Your task to perform on an android device: check out phone information Image 0: 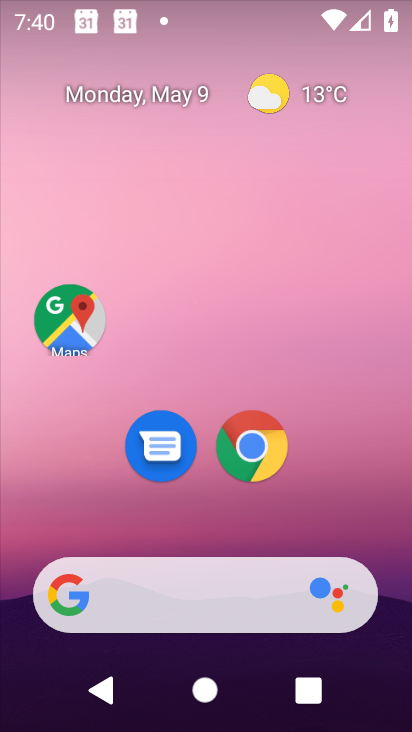
Step 0: drag from (317, 119) to (282, 177)
Your task to perform on an android device: check out phone information Image 1: 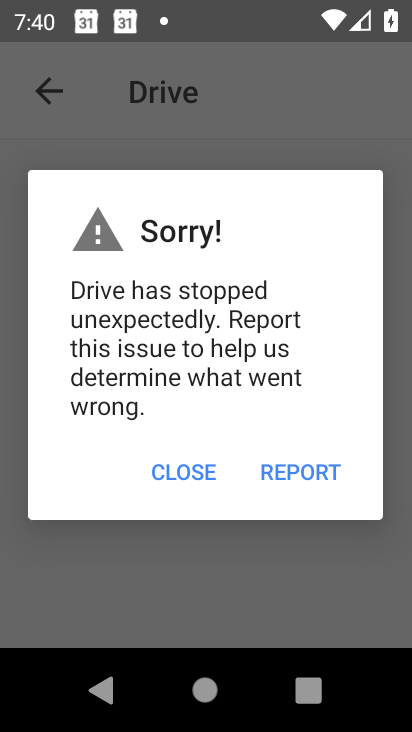
Step 1: press home button
Your task to perform on an android device: check out phone information Image 2: 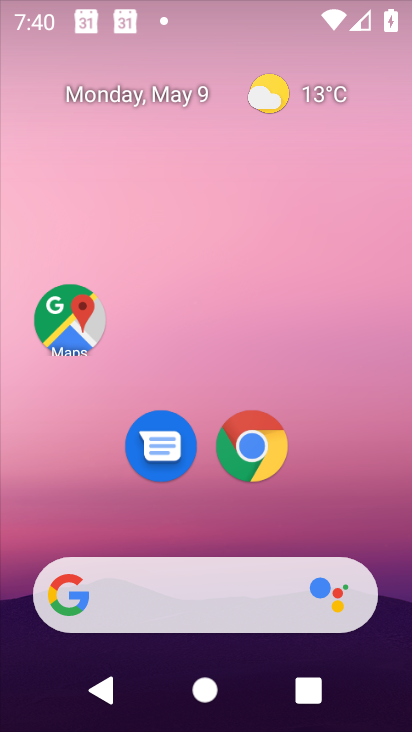
Step 2: drag from (315, 332) to (311, 89)
Your task to perform on an android device: check out phone information Image 3: 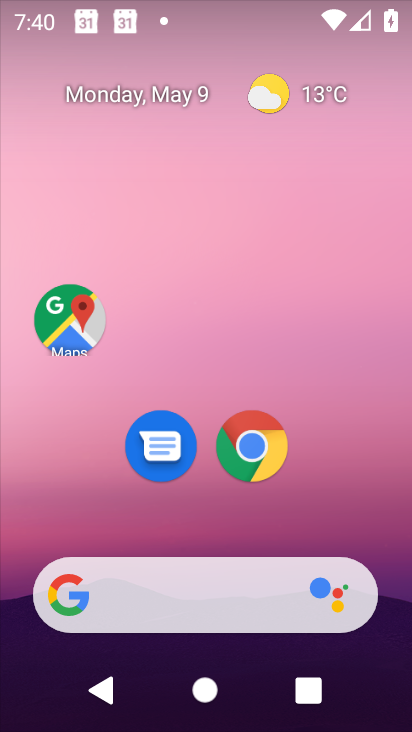
Step 3: drag from (324, 507) to (338, 93)
Your task to perform on an android device: check out phone information Image 4: 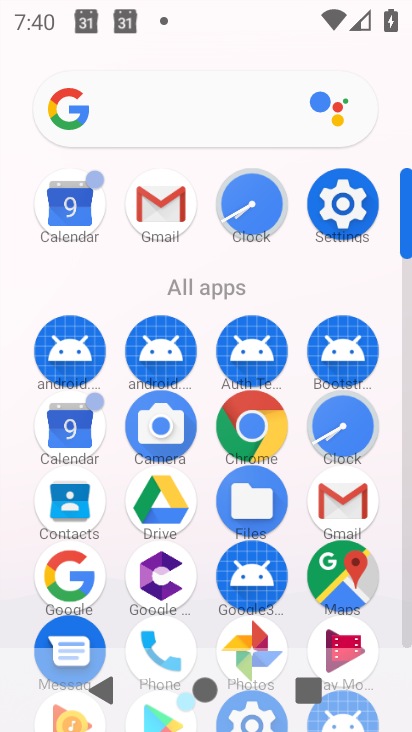
Step 4: click (165, 633)
Your task to perform on an android device: check out phone information Image 5: 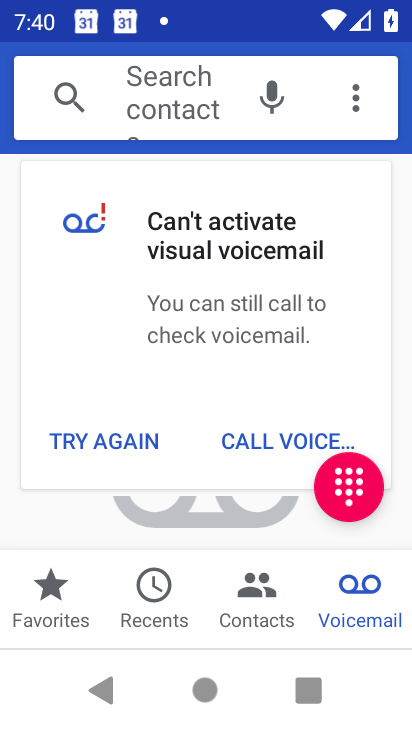
Step 5: click (358, 100)
Your task to perform on an android device: check out phone information Image 6: 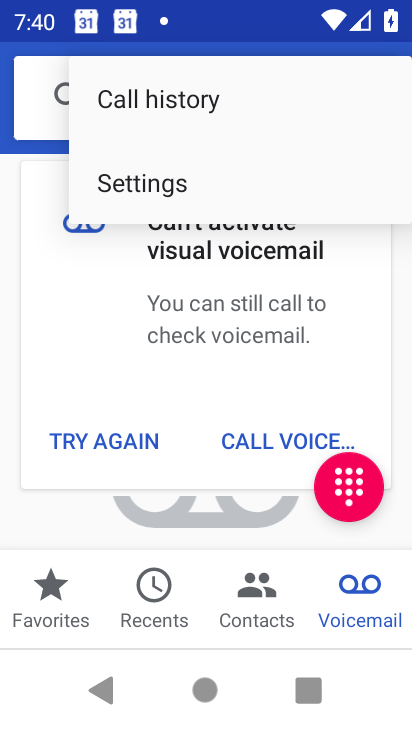
Step 6: click (194, 192)
Your task to perform on an android device: check out phone information Image 7: 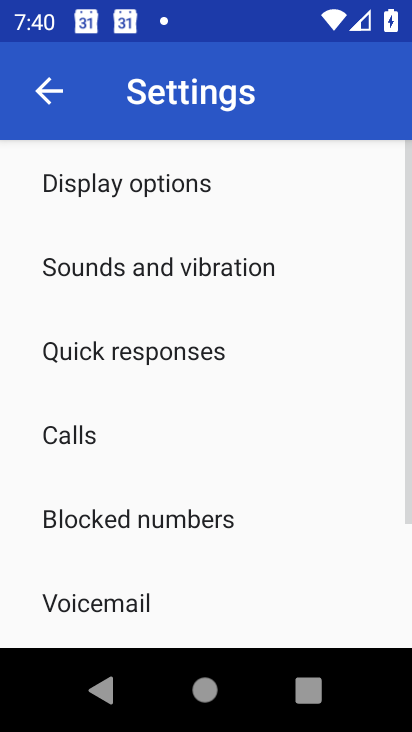
Step 7: drag from (198, 593) to (218, 145)
Your task to perform on an android device: check out phone information Image 8: 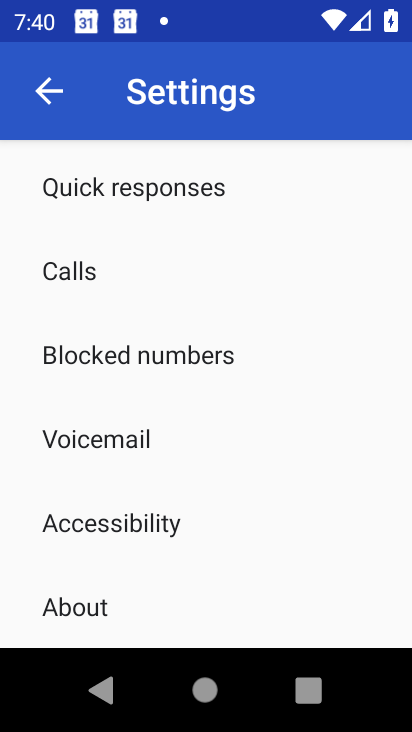
Step 8: click (96, 612)
Your task to perform on an android device: check out phone information Image 9: 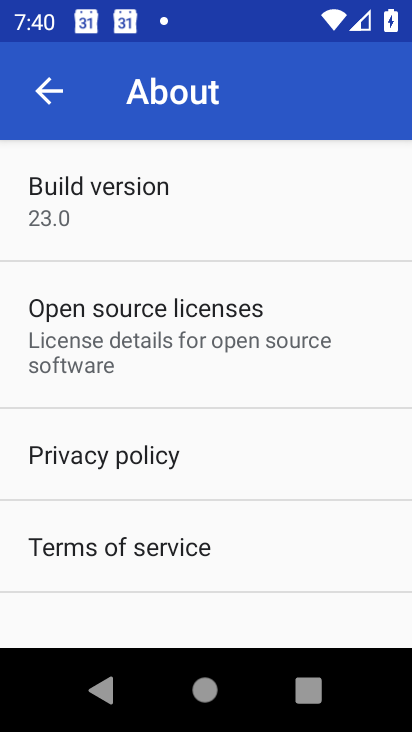
Step 9: task complete